Your task to perform on an android device: show emergency info Image 0: 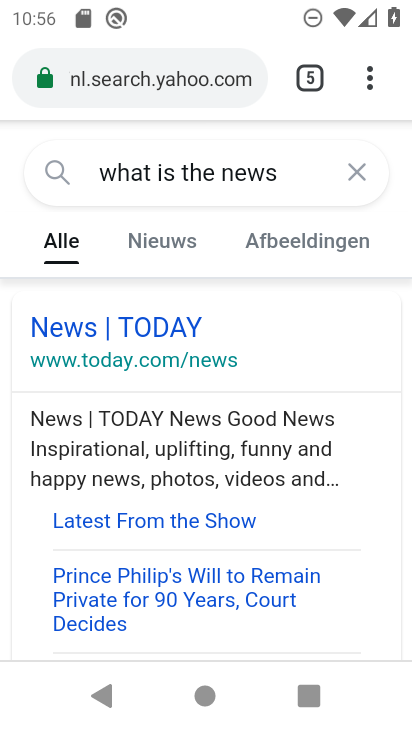
Step 0: press home button
Your task to perform on an android device: show emergency info Image 1: 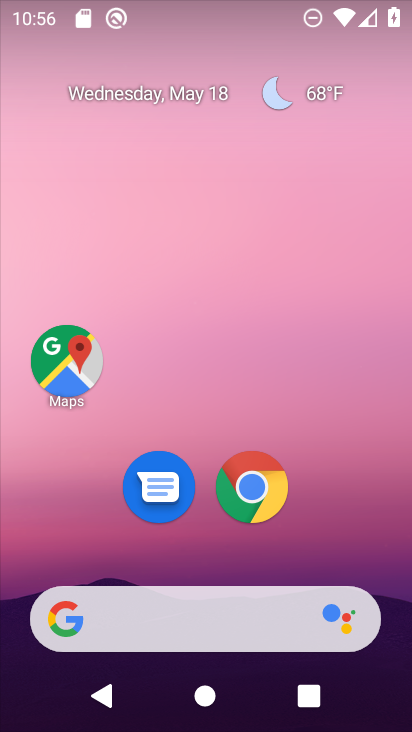
Step 1: drag from (389, 453) to (352, 97)
Your task to perform on an android device: show emergency info Image 2: 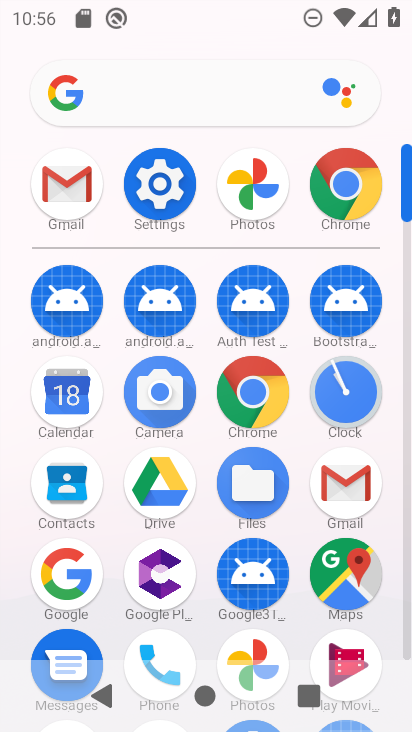
Step 2: click (157, 196)
Your task to perform on an android device: show emergency info Image 3: 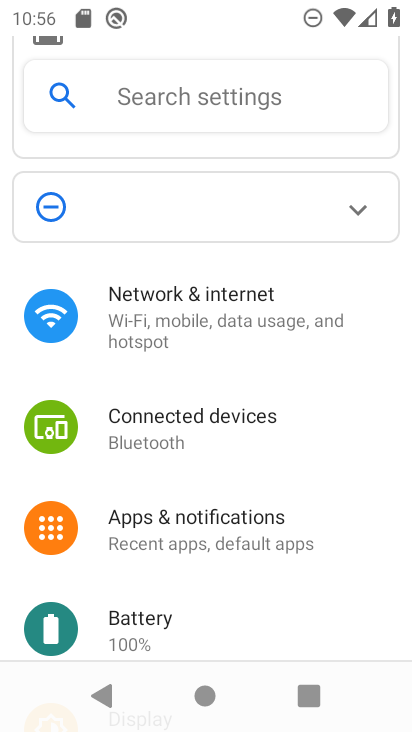
Step 3: drag from (286, 614) to (268, 176)
Your task to perform on an android device: show emergency info Image 4: 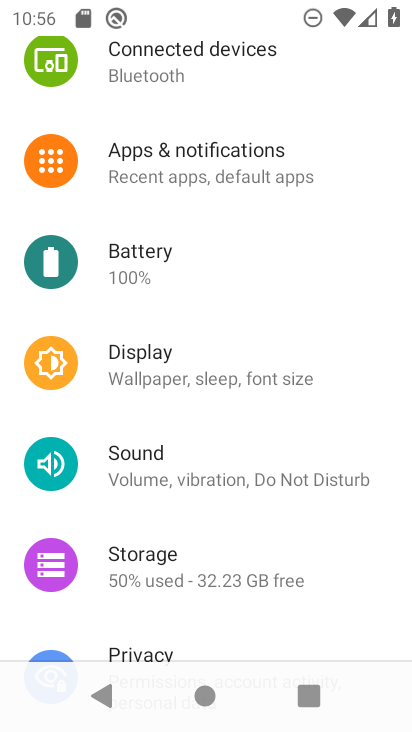
Step 4: drag from (283, 595) to (284, 241)
Your task to perform on an android device: show emergency info Image 5: 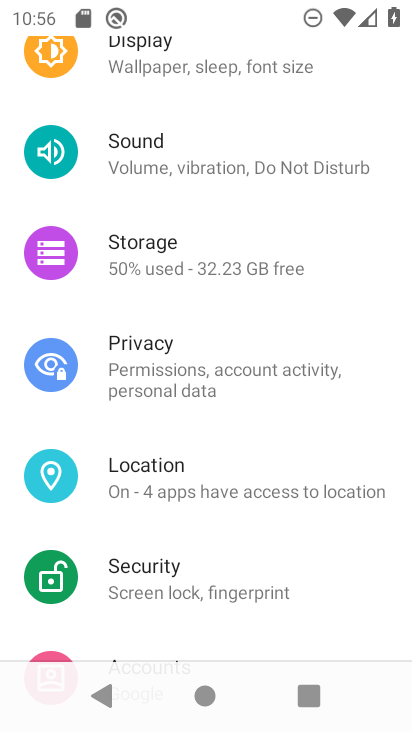
Step 5: drag from (303, 575) to (265, 125)
Your task to perform on an android device: show emergency info Image 6: 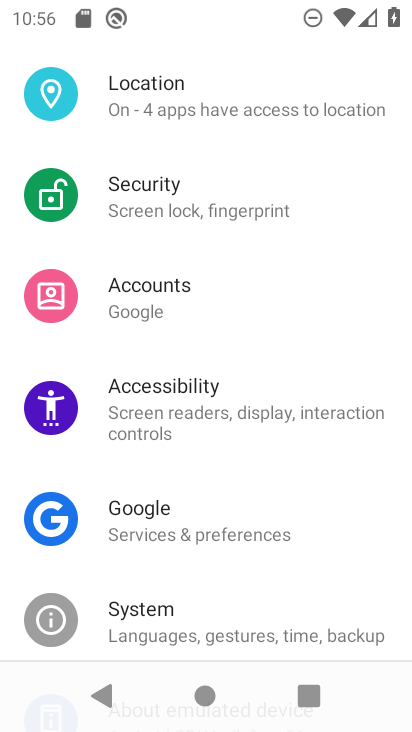
Step 6: drag from (300, 534) to (276, 129)
Your task to perform on an android device: show emergency info Image 7: 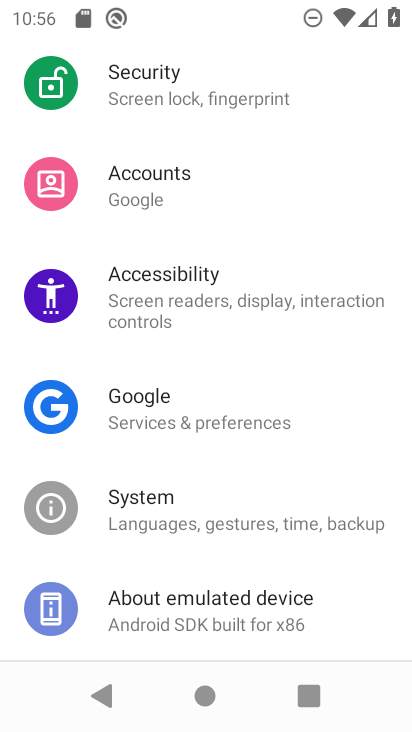
Step 7: click (217, 594)
Your task to perform on an android device: show emergency info Image 8: 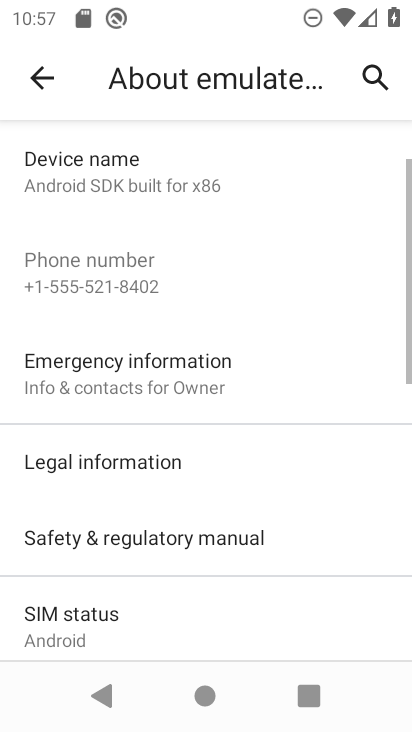
Step 8: click (158, 362)
Your task to perform on an android device: show emergency info Image 9: 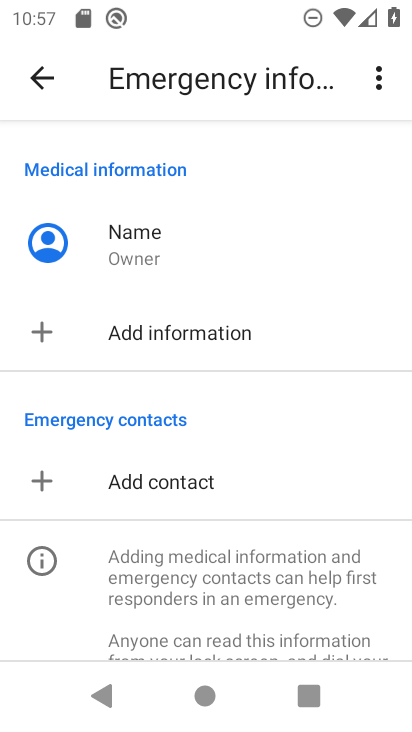
Step 9: task complete